Your task to perform on an android device: Open Wikipedia Image 0: 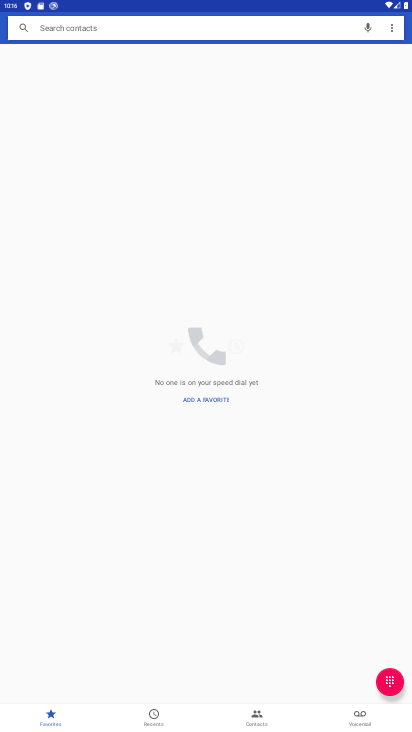
Step 0: press home button
Your task to perform on an android device: Open Wikipedia Image 1: 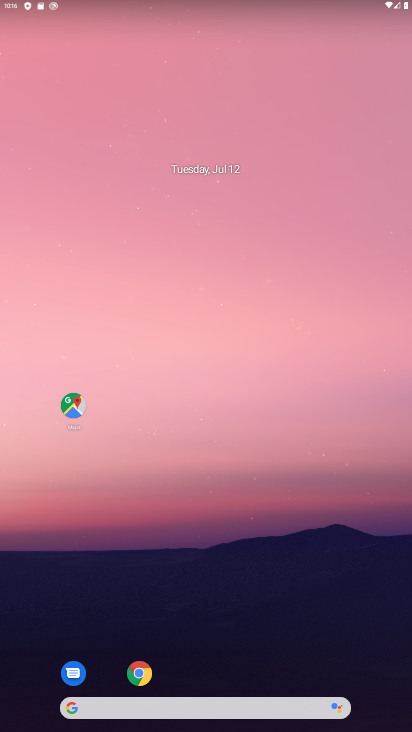
Step 1: click (141, 674)
Your task to perform on an android device: Open Wikipedia Image 2: 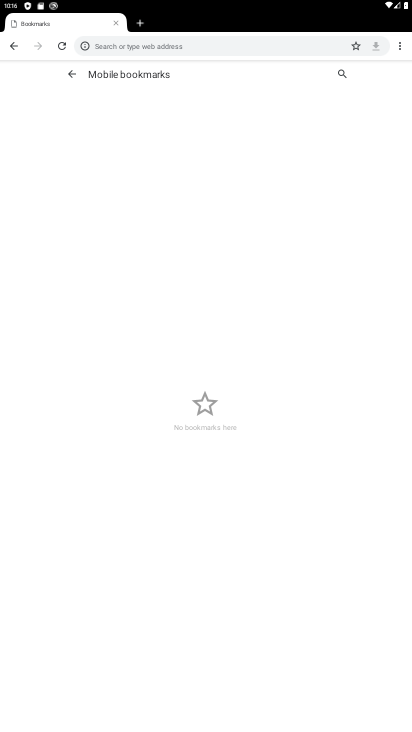
Step 2: click (197, 45)
Your task to perform on an android device: Open Wikipedia Image 3: 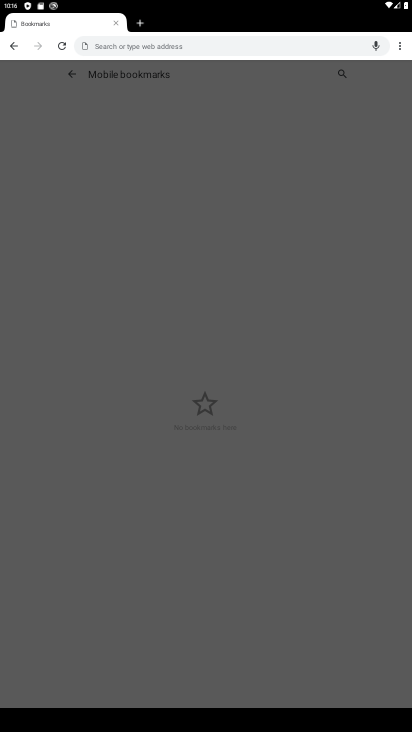
Step 3: type "wikipedia"
Your task to perform on an android device: Open Wikipedia Image 4: 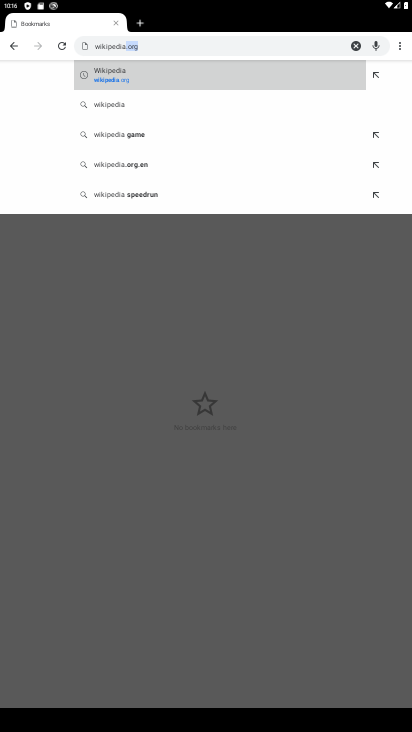
Step 4: click (291, 67)
Your task to perform on an android device: Open Wikipedia Image 5: 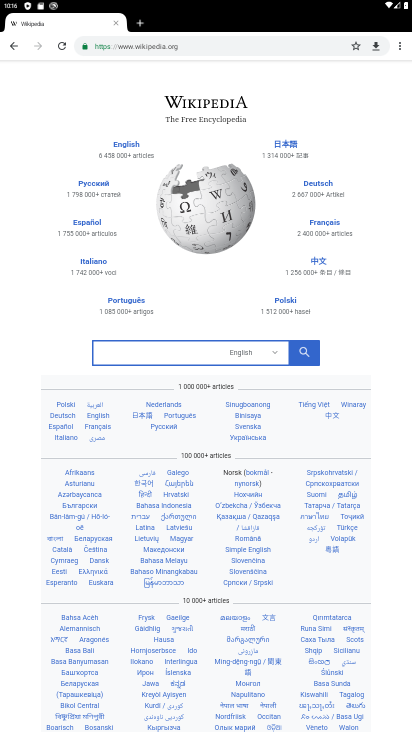
Step 5: task complete